Your task to perform on an android device: Go to Google Image 0: 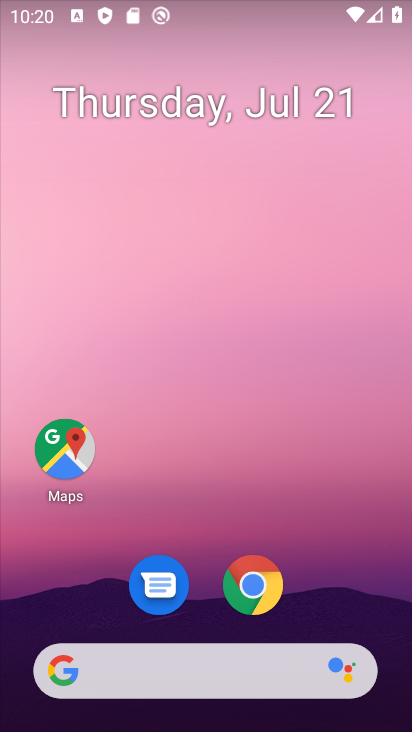
Step 0: click (225, 674)
Your task to perform on an android device: Go to Google Image 1: 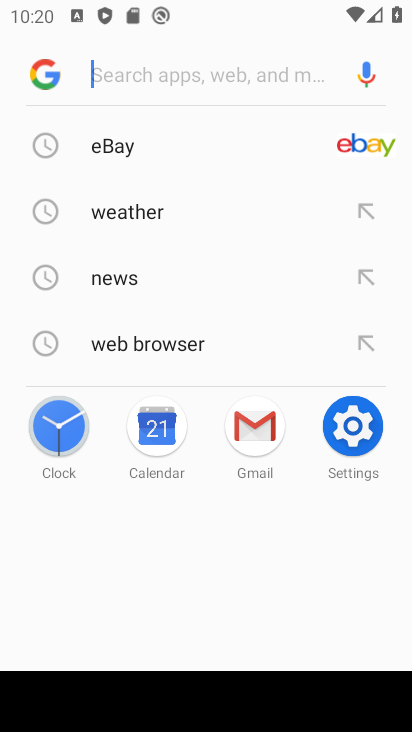
Step 1: click (51, 75)
Your task to perform on an android device: Go to Google Image 2: 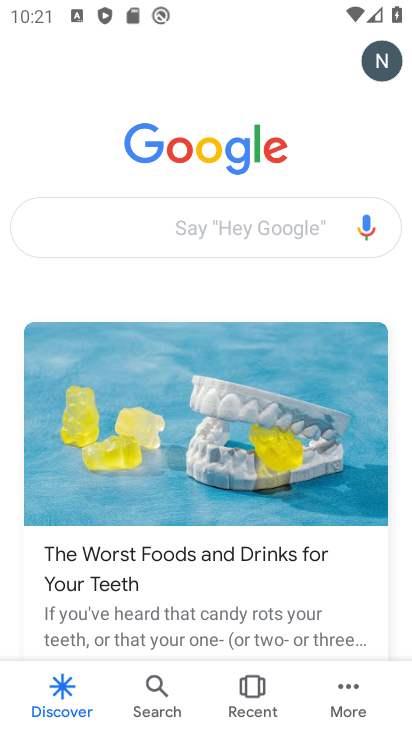
Step 2: task complete